Your task to perform on an android device: What is the recent news? Image 0: 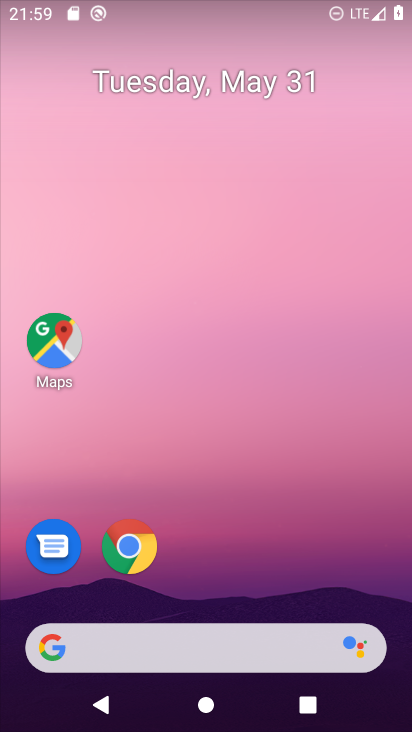
Step 0: drag from (3, 239) to (383, 247)
Your task to perform on an android device: What is the recent news? Image 1: 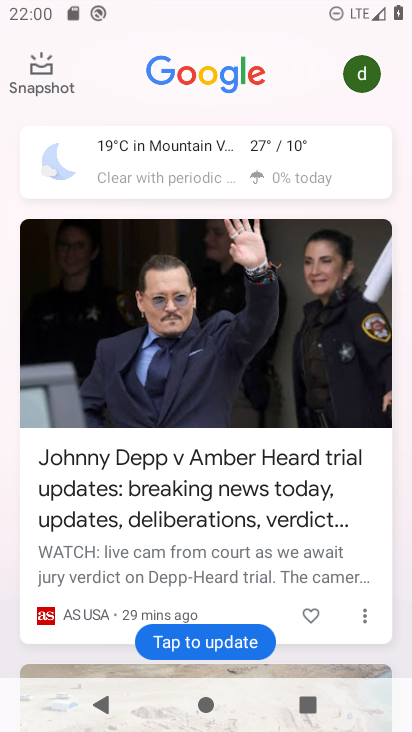
Step 1: task complete